Your task to perform on an android device: What's the price of the 1000-Watt EGO Power+ Snow Blower? Image 0: 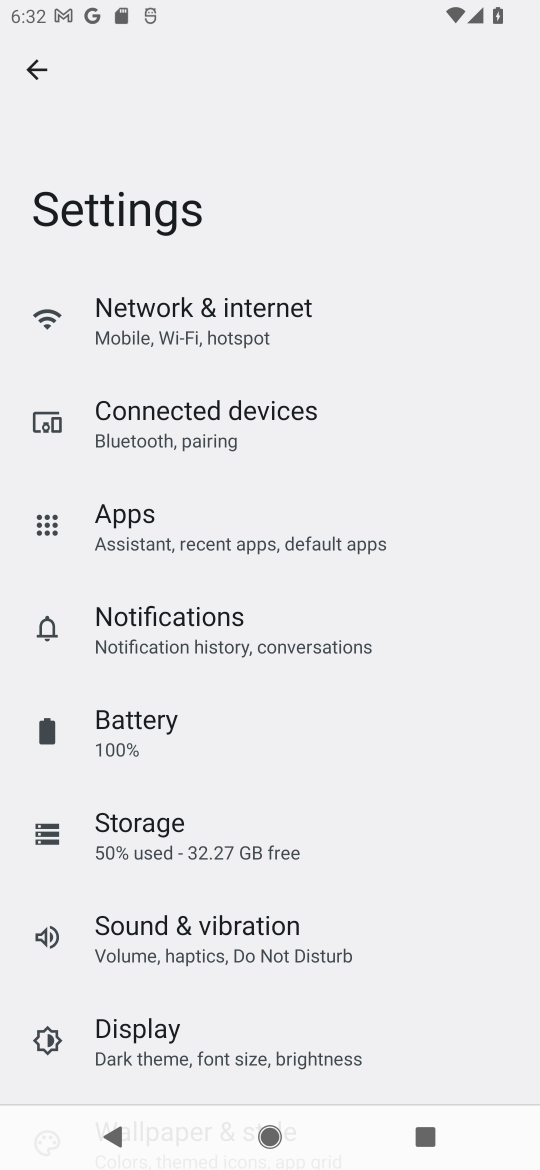
Step 0: press home button
Your task to perform on an android device: What's the price of the 1000-Watt EGO Power+ Snow Blower? Image 1: 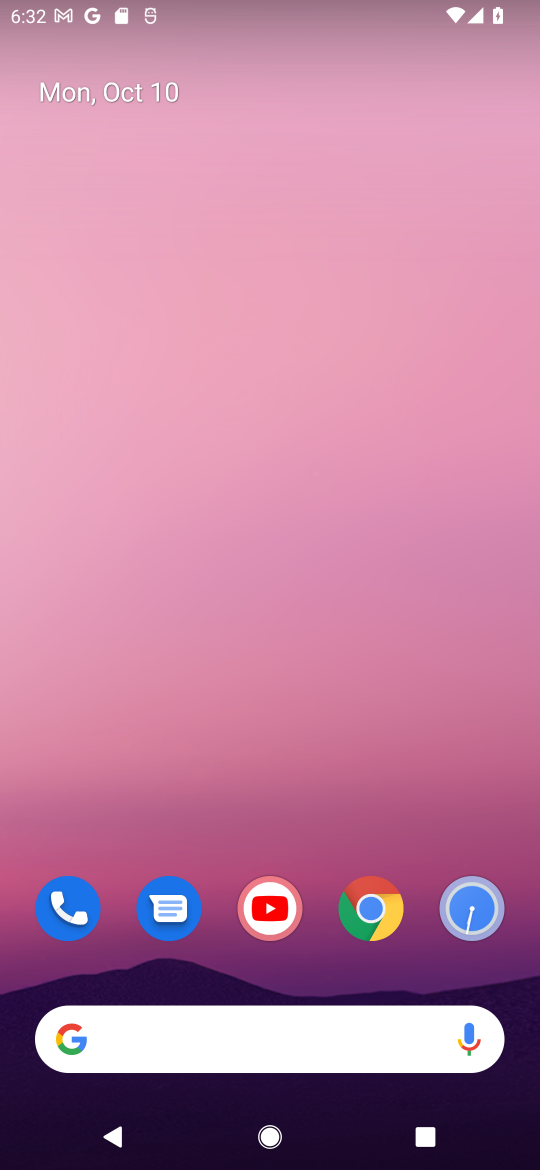
Step 1: drag from (297, 993) to (218, 376)
Your task to perform on an android device: What's the price of the 1000-Watt EGO Power+ Snow Blower? Image 2: 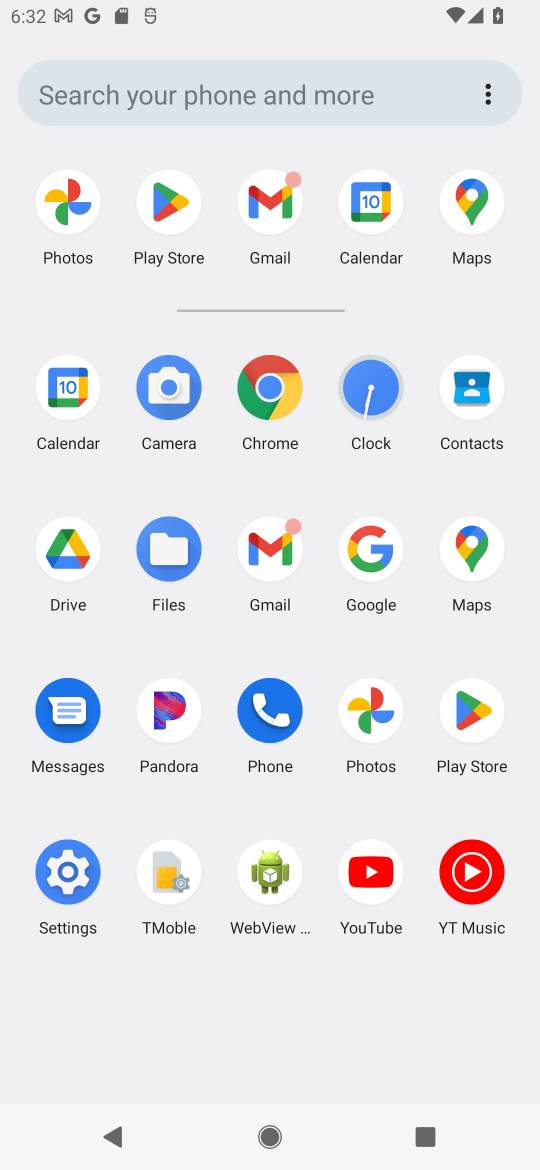
Step 2: click (265, 390)
Your task to perform on an android device: What's the price of the 1000-Watt EGO Power+ Snow Blower? Image 3: 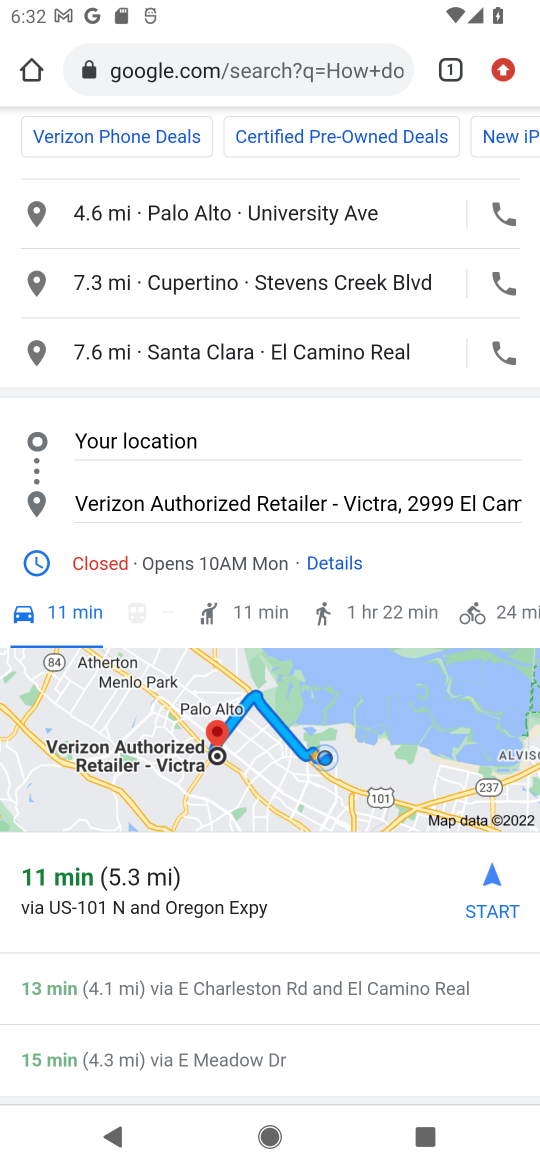
Step 3: click (317, 68)
Your task to perform on an android device: What's the price of the 1000-Watt EGO Power+ Snow Blower? Image 4: 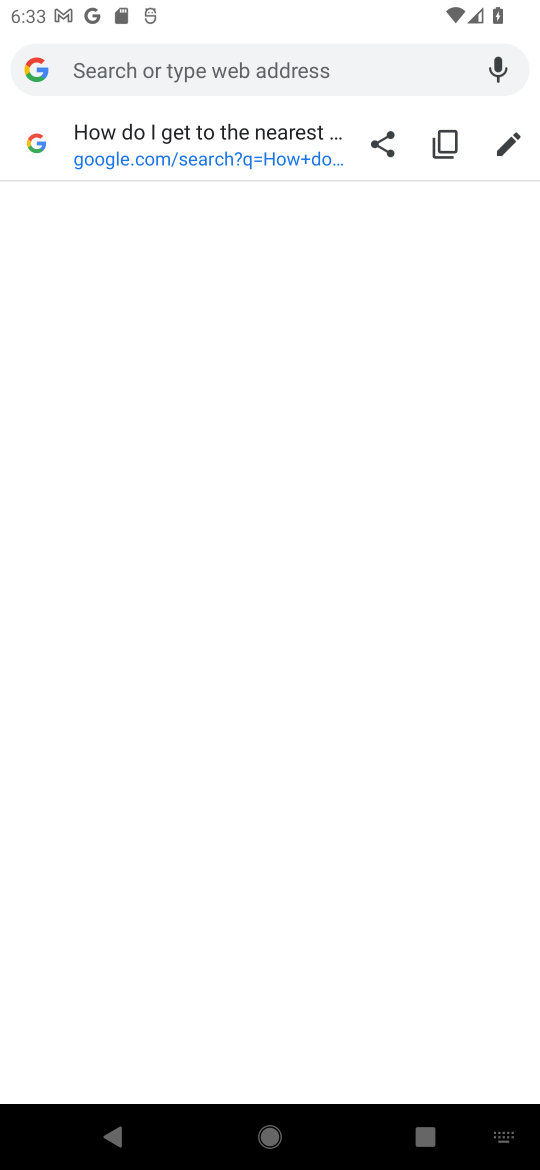
Step 4: type "What's the price of the 1000-Watt EGo=zzzzzo Powe+ Snow Blower?"
Your task to perform on an android device: What's the price of the 1000-Watt EGO Power+ Snow Blower? Image 5: 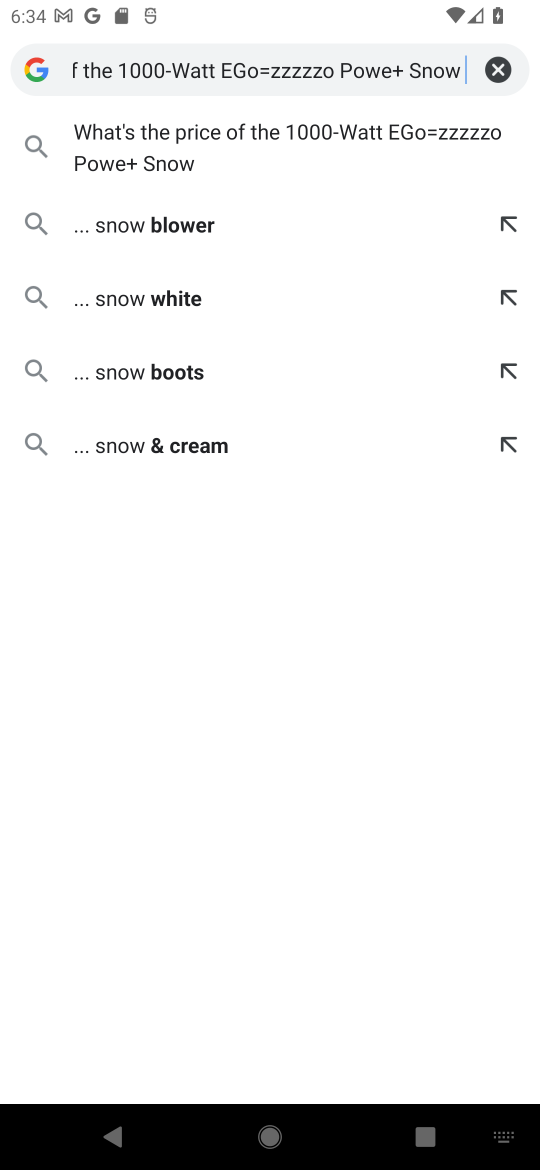
Step 5: type "Blower?"
Your task to perform on an android device: What's the price of the 1000-Watt EGO Power+ Snow Blower? Image 6: 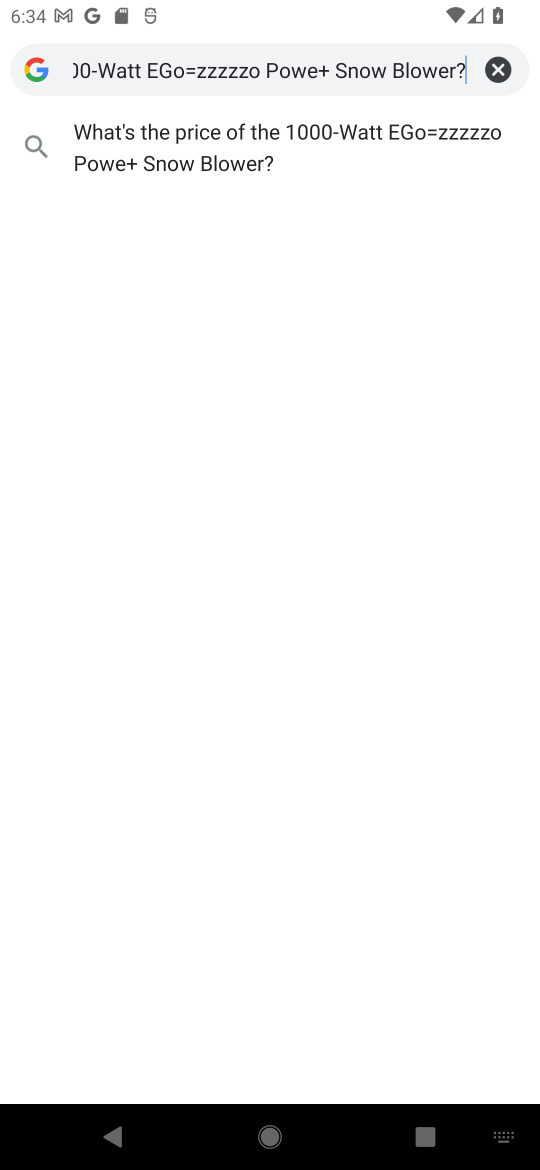
Step 6: press enter
Your task to perform on an android device: What's the price of the 1000-Watt EGO Power+ Snow Blower? Image 7: 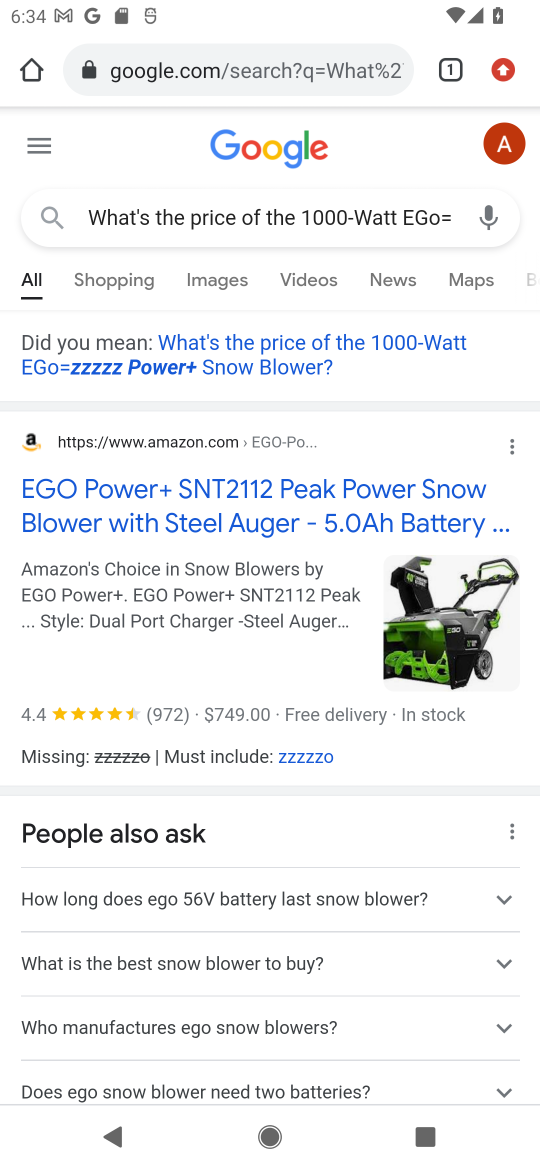
Step 7: click (309, 345)
Your task to perform on an android device: What's the price of the 1000-Watt EGO Power+ Snow Blower? Image 8: 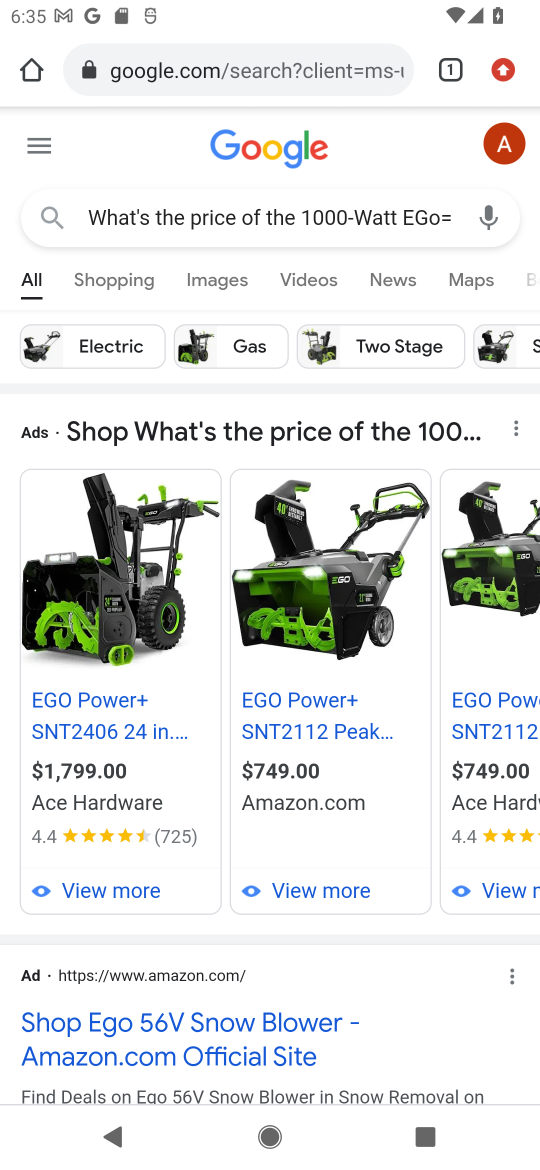
Step 8: task complete